Your task to perform on an android device: delete a single message in the gmail app Image 0: 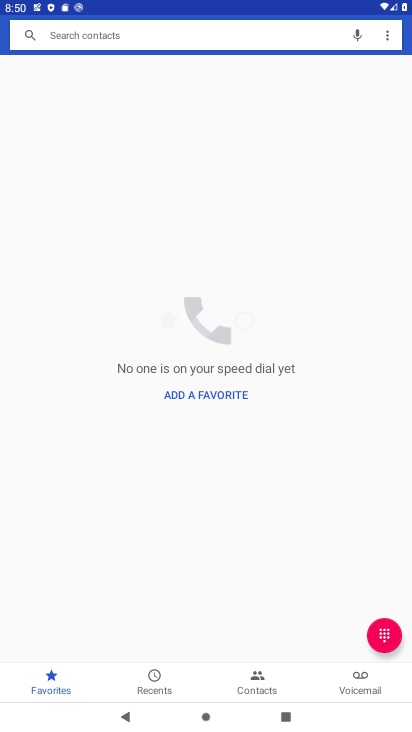
Step 0: press home button
Your task to perform on an android device: delete a single message in the gmail app Image 1: 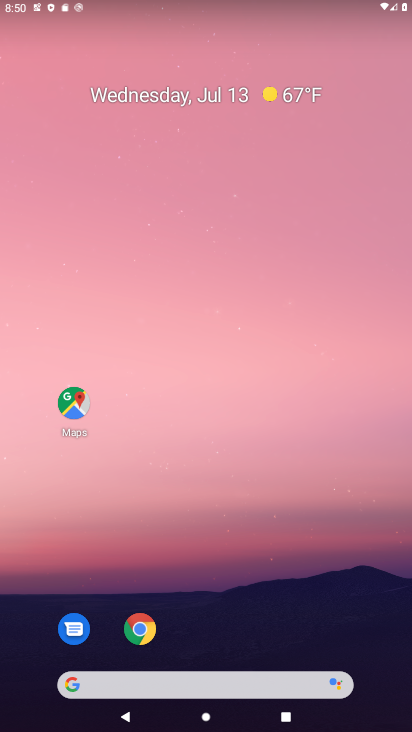
Step 1: drag from (191, 637) to (243, 4)
Your task to perform on an android device: delete a single message in the gmail app Image 2: 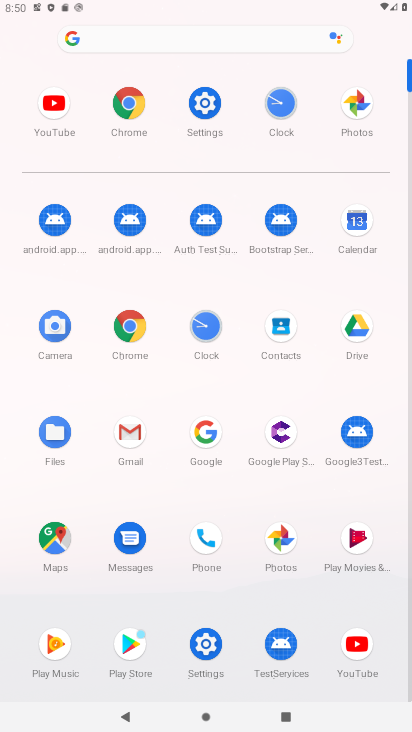
Step 2: click (141, 441)
Your task to perform on an android device: delete a single message in the gmail app Image 3: 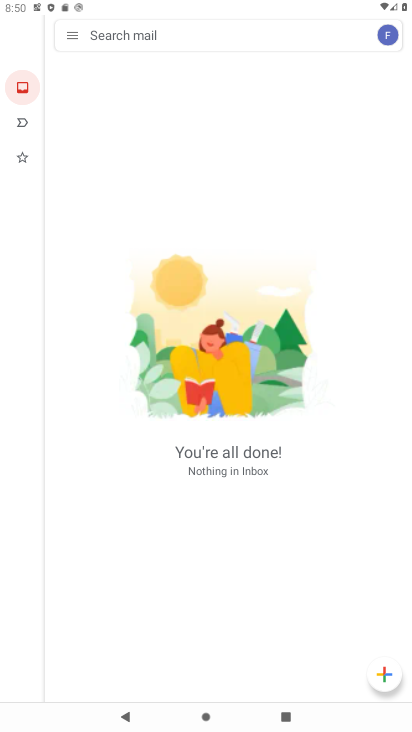
Step 3: task complete